Your task to perform on an android device: remove spam from my inbox in the gmail app Image 0: 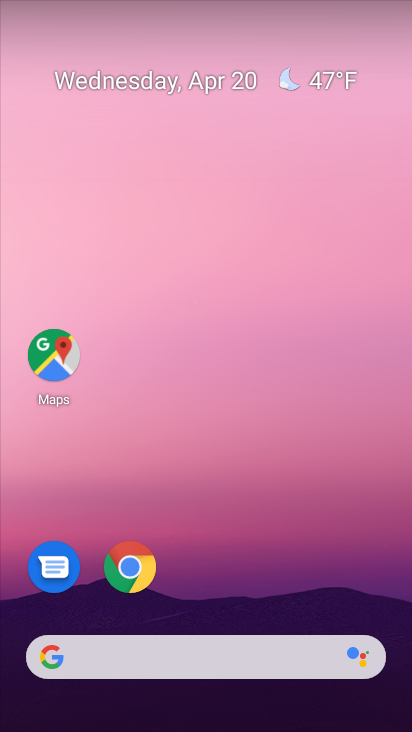
Step 0: drag from (358, 574) to (271, 21)
Your task to perform on an android device: remove spam from my inbox in the gmail app Image 1: 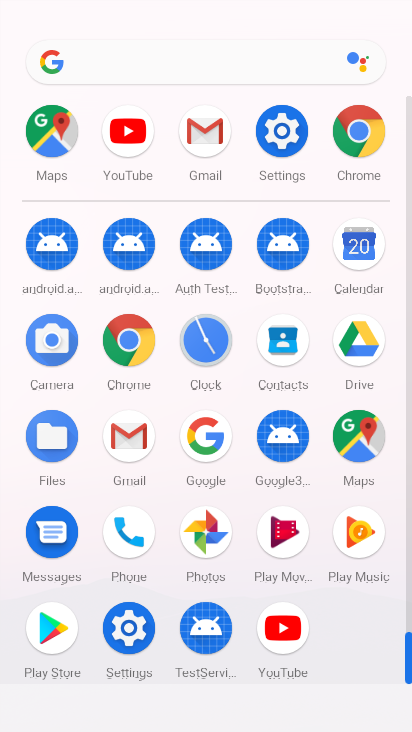
Step 1: drag from (10, 517) to (25, 188)
Your task to perform on an android device: remove spam from my inbox in the gmail app Image 2: 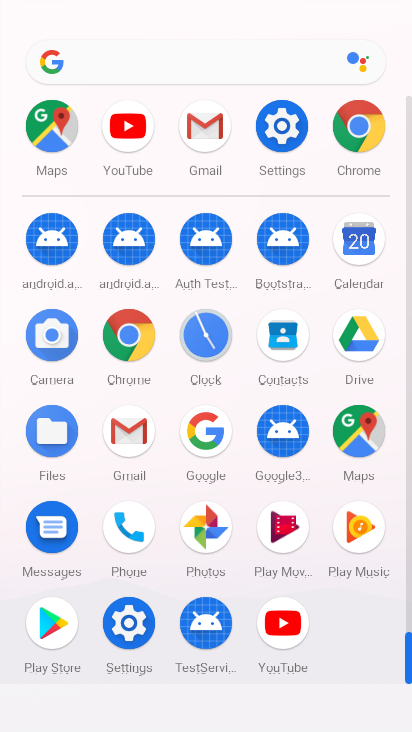
Step 2: click (10, 296)
Your task to perform on an android device: remove spam from my inbox in the gmail app Image 3: 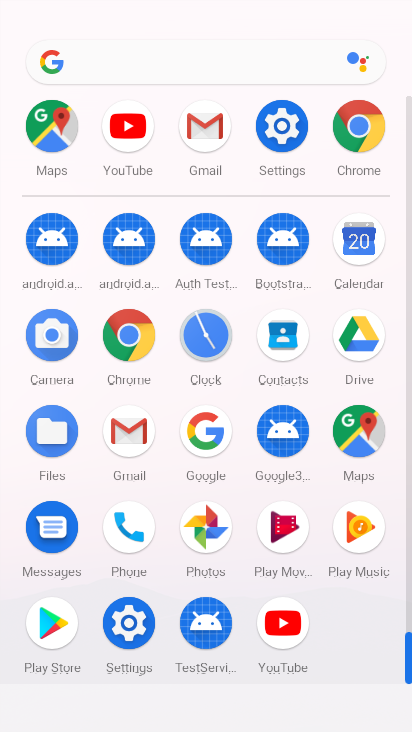
Step 3: click (206, 119)
Your task to perform on an android device: remove spam from my inbox in the gmail app Image 4: 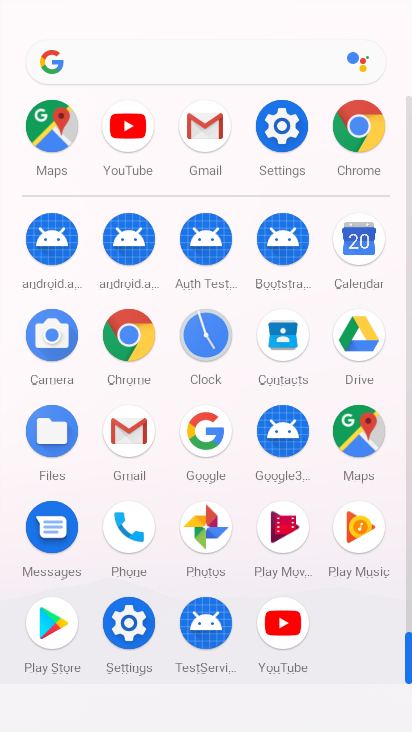
Step 4: click (203, 121)
Your task to perform on an android device: remove spam from my inbox in the gmail app Image 5: 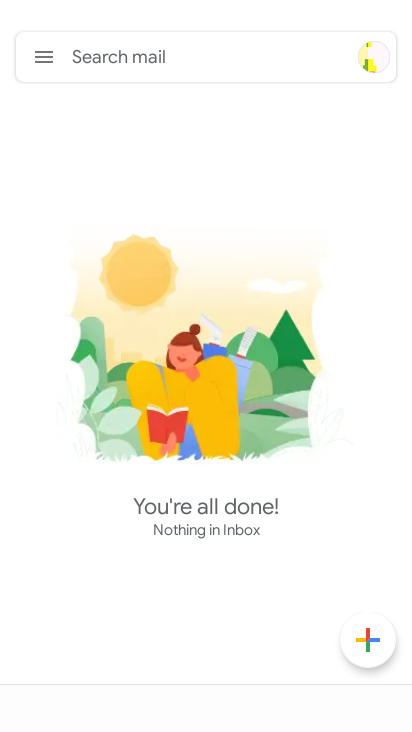
Step 5: click (47, 46)
Your task to perform on an android device: remove spam from my inbox in the gmail app Image 6: 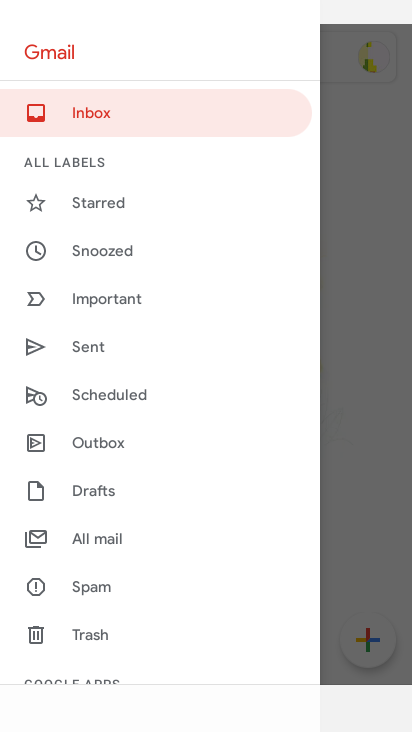
Step 6: click (97, 577)
Your task to perform on an android device: remove spam from my inbox in the gmail app Image 7: 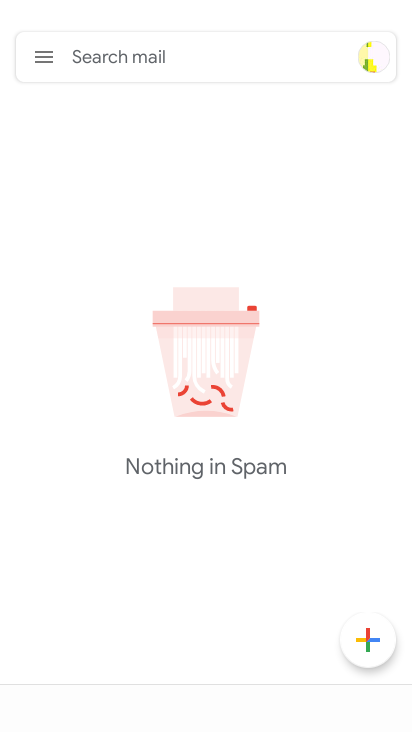
Step 7: task complete